Your task to perform on an android device: Open the Play Movies app and select the watchlist tab. Image 0: 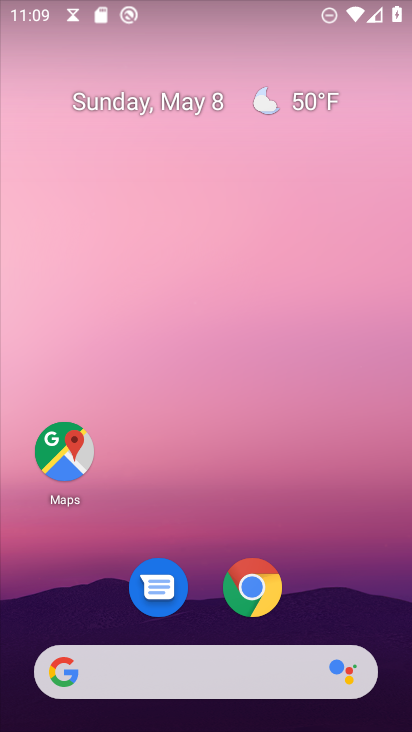
Step 0: drag from (273, 412) to (211, 100)
Your task to perform on an android device: Open the Play Movies app and select the watchlist tab. Image 1: 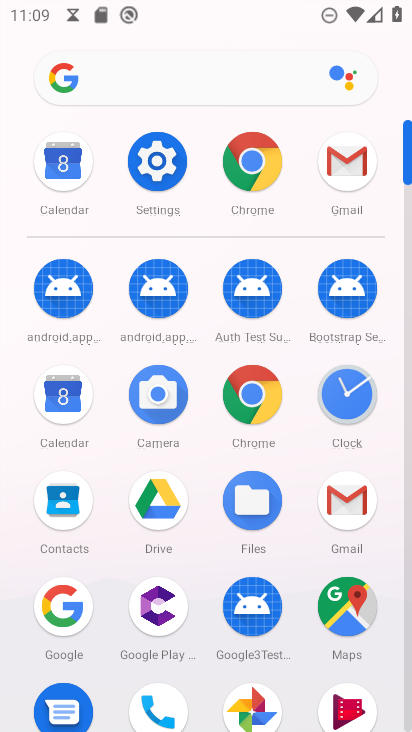
Step 1: click (351, 712)
Your task to perform on an android device: Open the Play Movies app and select the watchlist tab. Image 2: 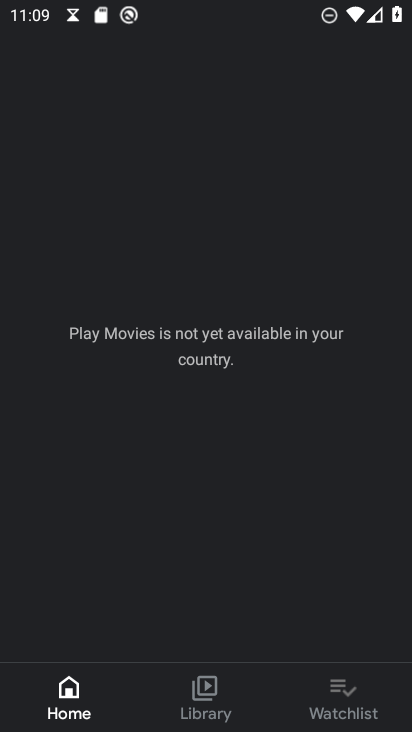
Step 2: task complete